Your task to perform on an android device: turn on showing notifications on the lock screen Image 0: 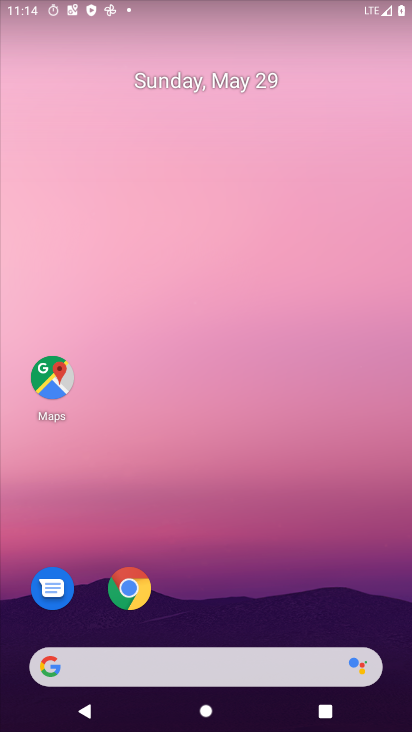
Step 0: drag from (187, 590) to (204, 127)
Your task to perform on an android device: turn on showing notifications on the lock screen Image 1: 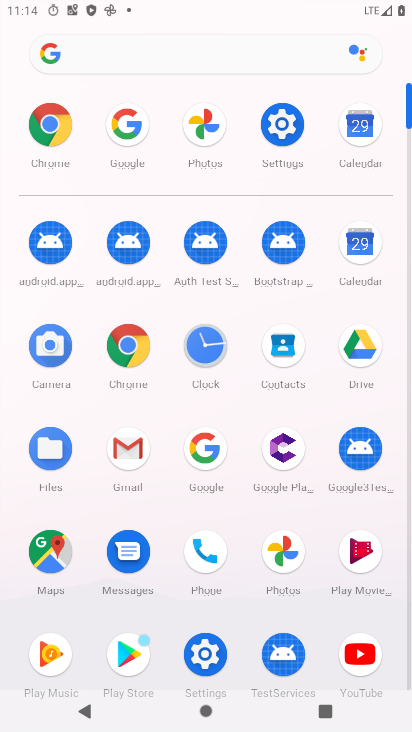
Step 1: click (196, 662)
Your task to perform on an android device: turn on showing notifications on the lock screen Image 2: 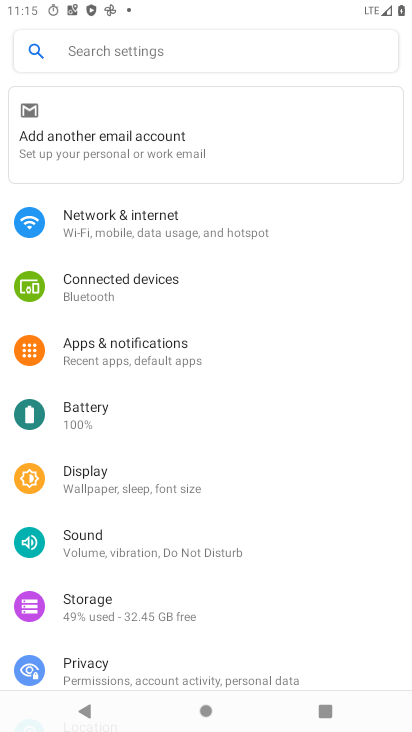
Step 2: click (123, 346)
Your task to perform on an android device: turn on showing notifications on the lock screen Image 3: 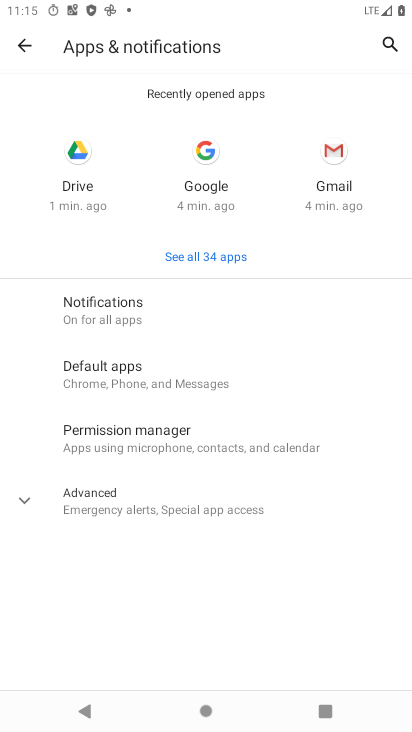
Step 3: click (144, 320)
Your task to perform on an android device: turn on showing notifications on the lock screen Image 4: 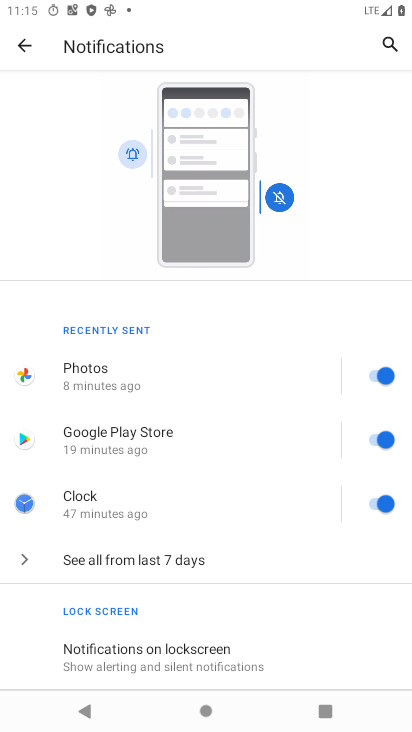
Step 4: click (157, 648)
Your task to perform on an android device: turn on showing notifications on the lock screen Image 5: 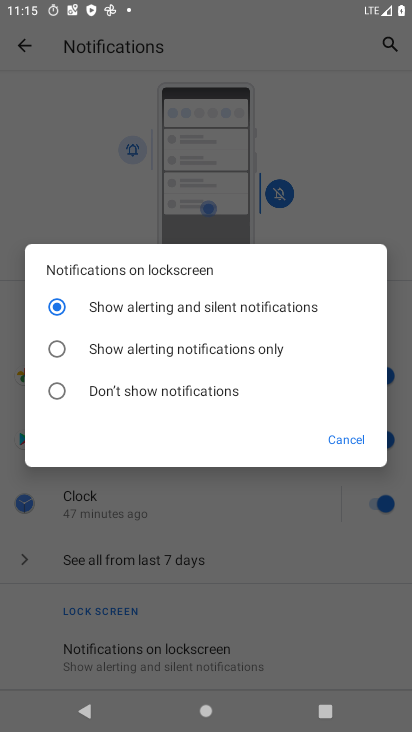
Step 5: task complete